Your task to perform on an android device: search for starred emails in the gmail app Image 0: 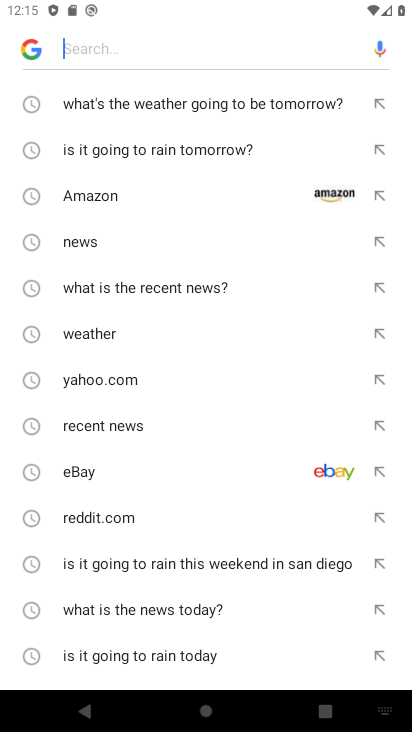
Step 0: press home button
Your task to perform on an android device: search for starred emails in the gmail app Image 1: 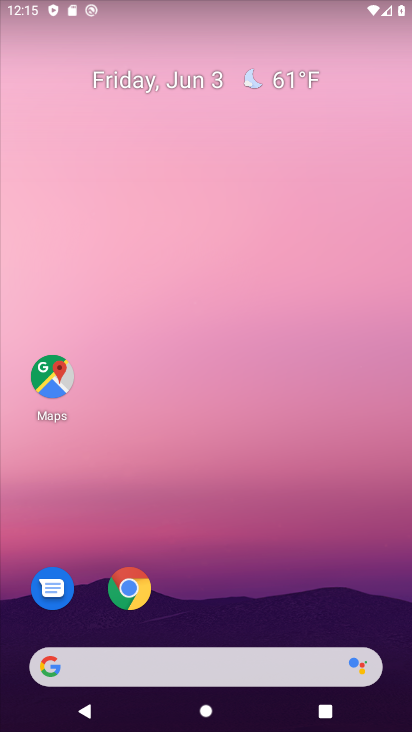
Step 1: drag from (275, 518) to (251, 120)
Your task to perform on an android device: search for starred emails in the gmail app Image 2: 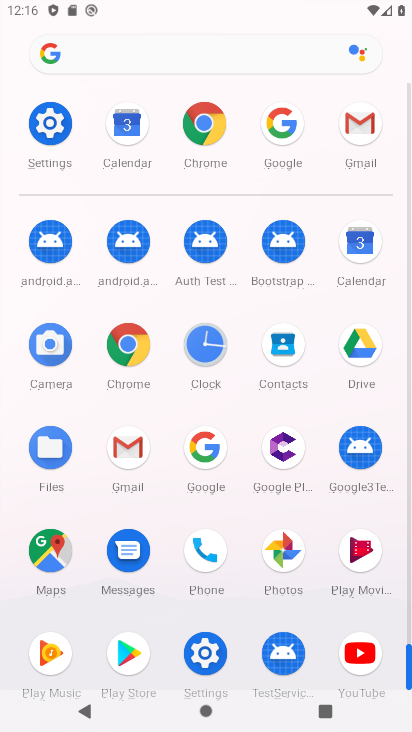
Step 2: click (132, 477)
Your task to perform on an android device: search for starred emails in the gmail app Image 3: 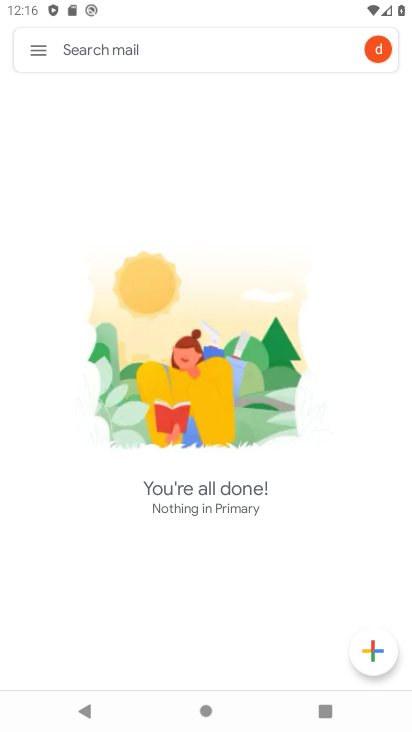
Step 3: click (42, 60)
Your task to perform on an android device: search for starred emails in the gmail app Image 4: 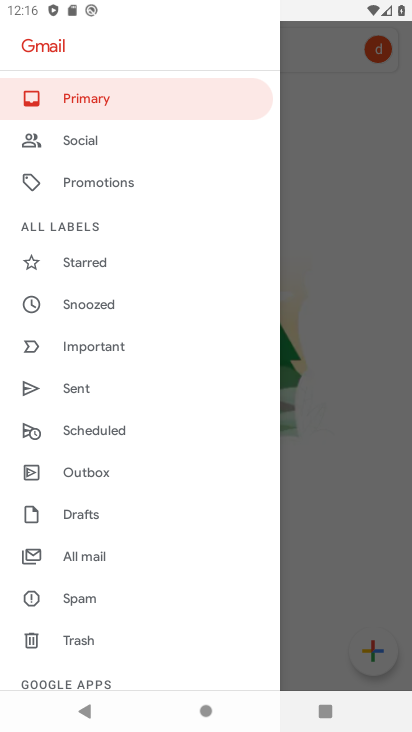
Step 4: click (105, 269)
Your task to perform on an android device: search for starred emails in the gmail app Image 5: 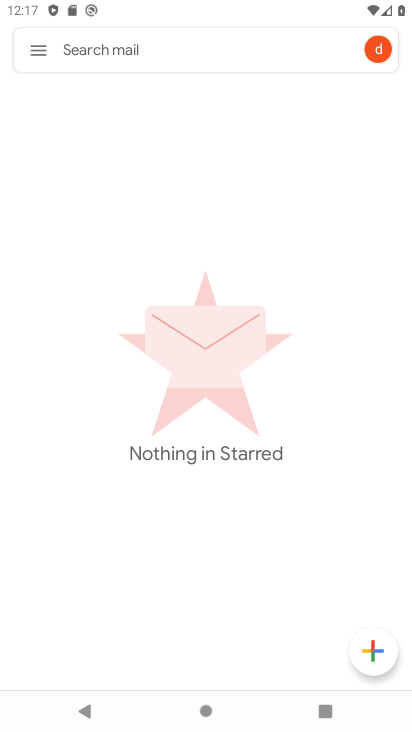
Step 5: task complete